Your task to perform on an android device: clear history in the chrome app Image 0: 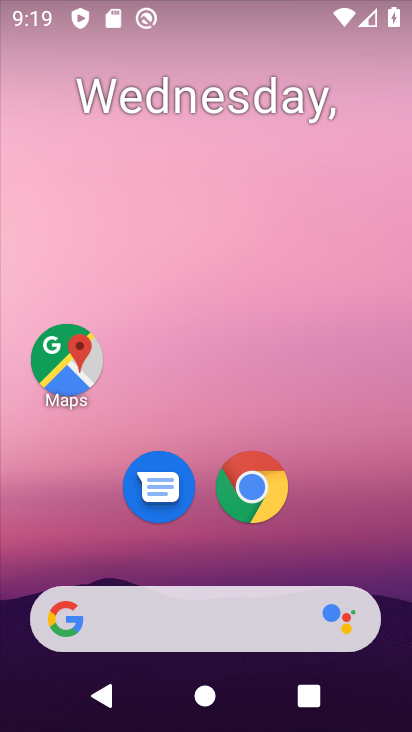
Step 0: click (266, 483)
Your task to perform on an android device: clear history in the chrome app Image 1: 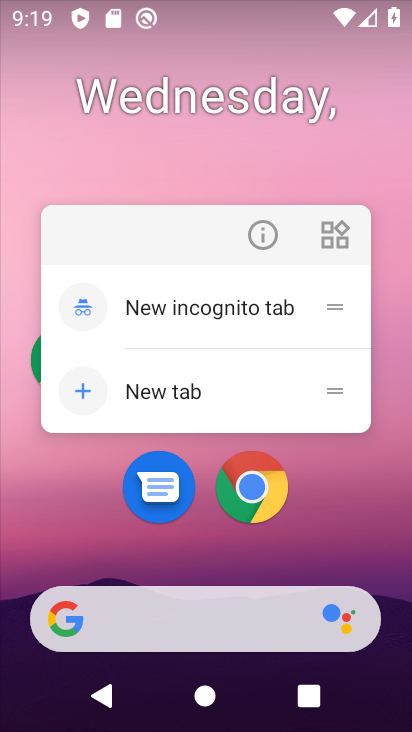
Step 1: click (285, 496)
Your task to perform on an android device: clear history in the chrome app Image 2: 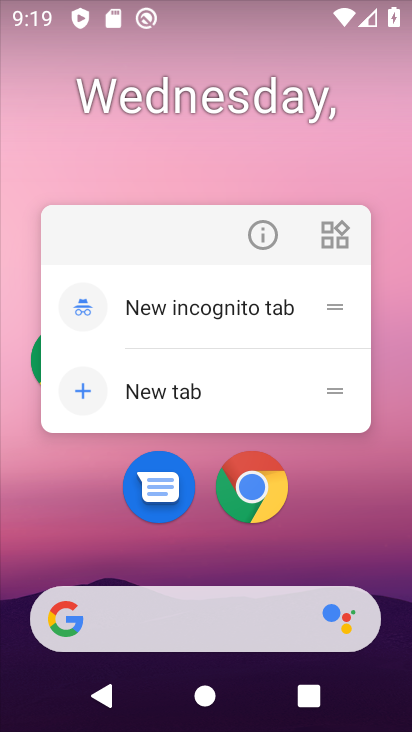
Step 2: click (263, 227)
Your task to perform on an android device: clear history in the chrome app Image 3: 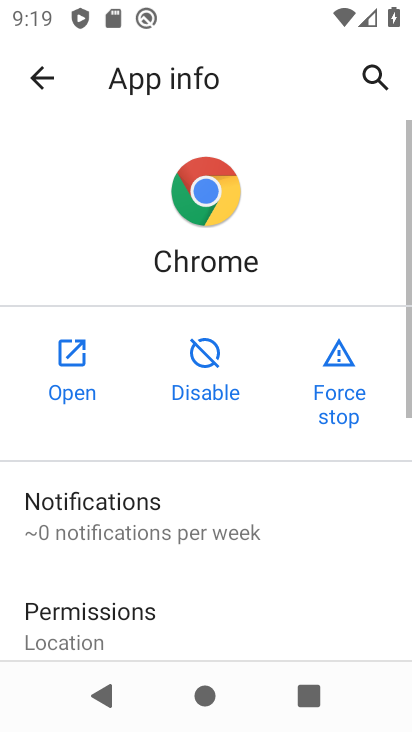
Step 3: click (61, 356)
Your task to perform on an android device: clear history in the chrome app Image 4: 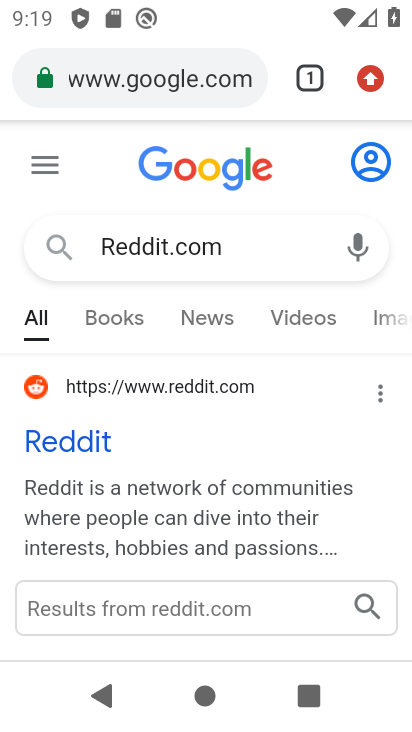
Step 4: click (376, 90)
Your task to perform on an android device: clear history in the chrome app Image 5: 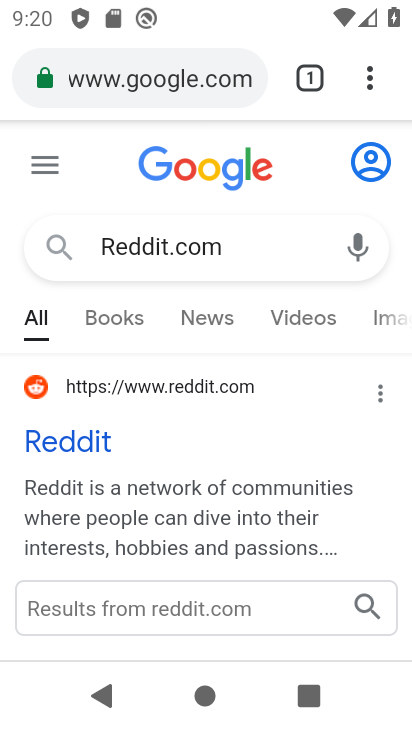
Step 5: click (370, 85)
Your task to perform on an android device: clear history in the chrome app Image 6: 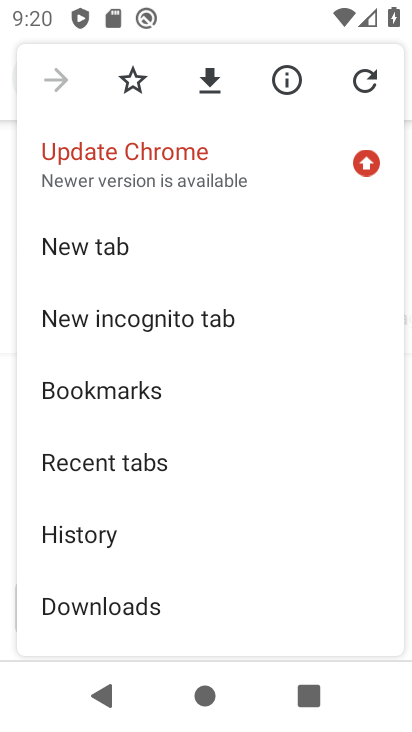
Step 6: drag from (156, 583) to (255, 196)
Your task to perform on an android device: clear history in the chrome app Image 7: 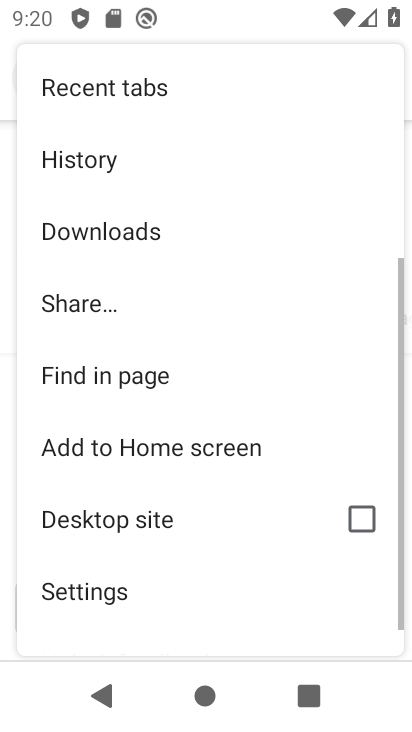
Step 7: click (118, 590)
Your task to perform on an android device: clear history in the chrome app Image 8: 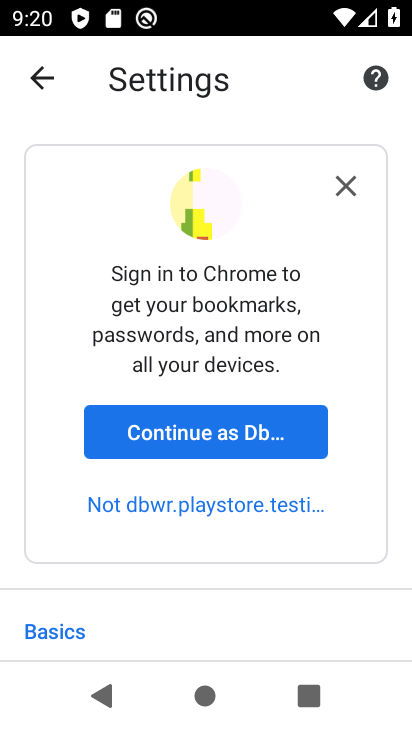
Step 8: click (118, 589)
Your task to perform on an android device: clear history in the chrome app Image 9: 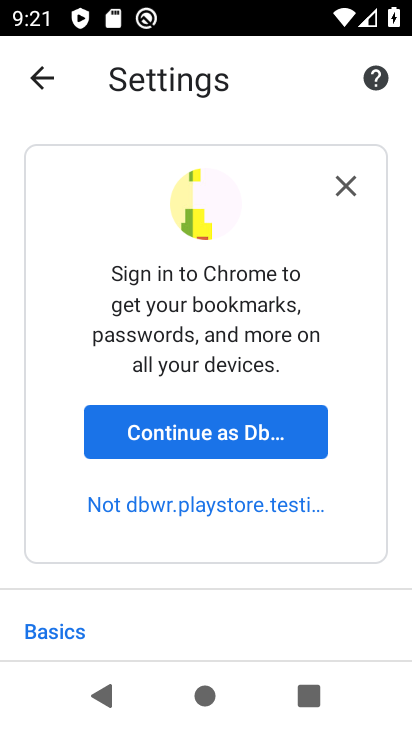
Step 9: click (347, 190)
Your task to perform on an android device: clear history in the chrome app Image 10: 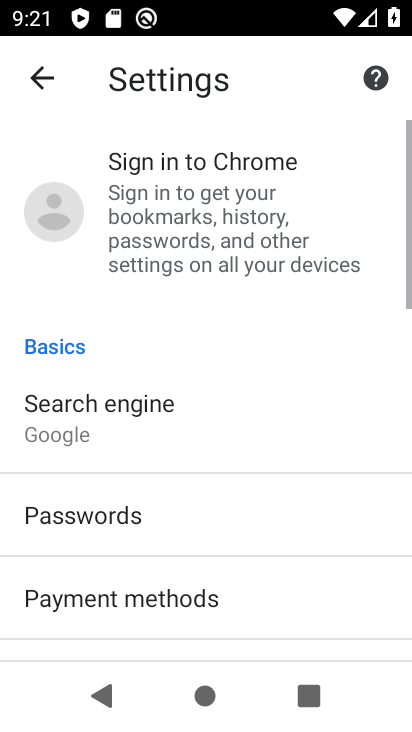
Step 10: drag from (228, 599) to (285, 175)
Your task to perform on an android device: clear history in the chrome app Image 11: 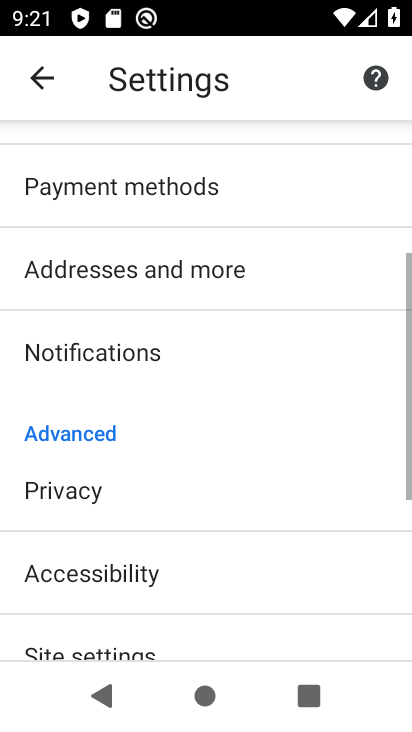
Step 11: drag from (233, 581) to (278, 269)
Your task to perform on an android device: clear history in the chrome app Image 12: 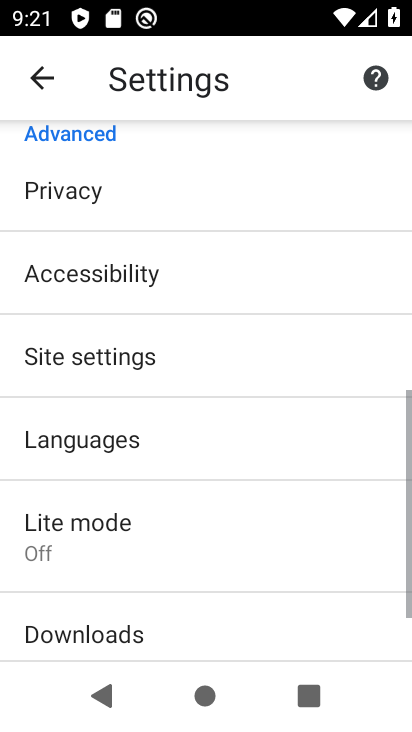
Step 12: click (71, 173)
Your task to perform on an android device: clear history in the chrome app Image 13: 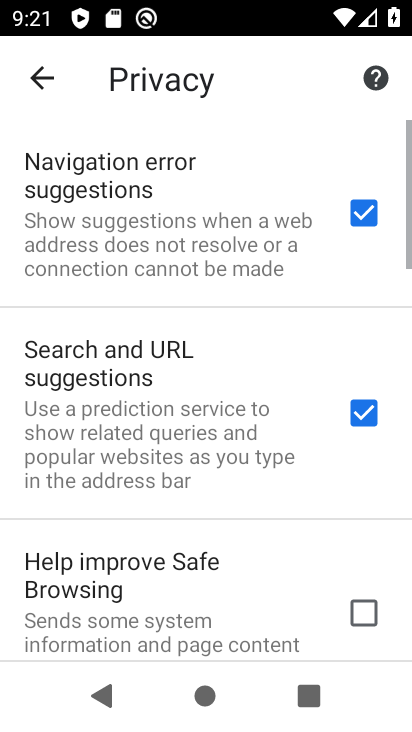
Step 13: drag from (244, 585) to (300, 134)
Your task to perform on an android device: clear history in the chrome app Image 14: 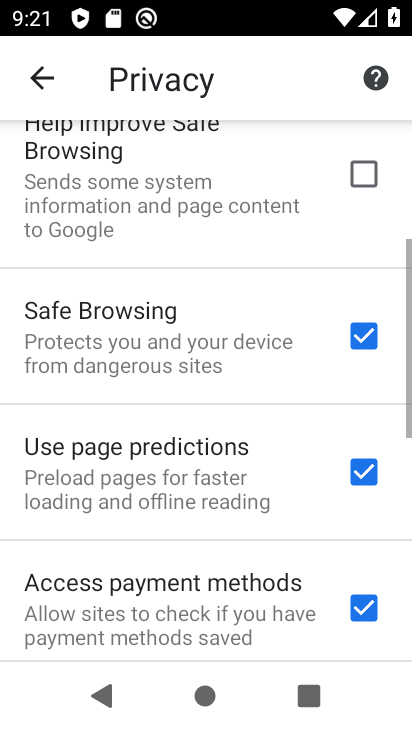
Step 14: drag from (264, 551) to (311, 188)
Your task to perform on an android device: clear history in the chrome app Image 15: 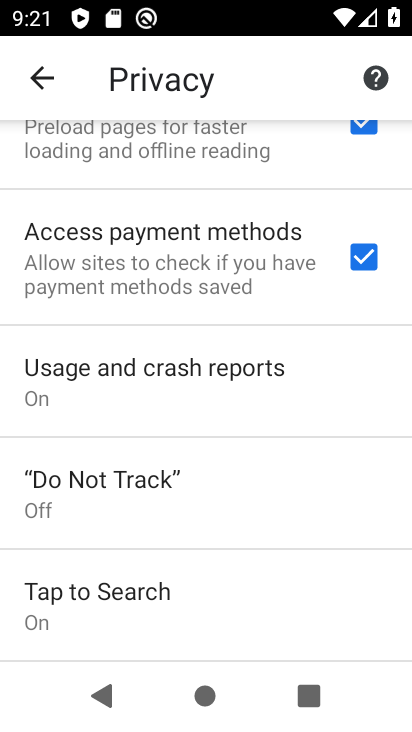
Step 15: drag from (287, 631) to (314, 300)
Your task to perform on an android device: clear history in the chrome app Image 16: 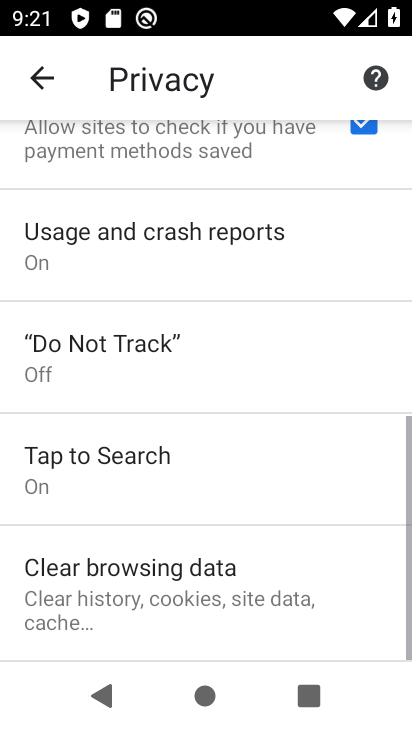
Step 16: click (181, 605)
Your task to perform on an android device: clear history in the chrome app Image 17: 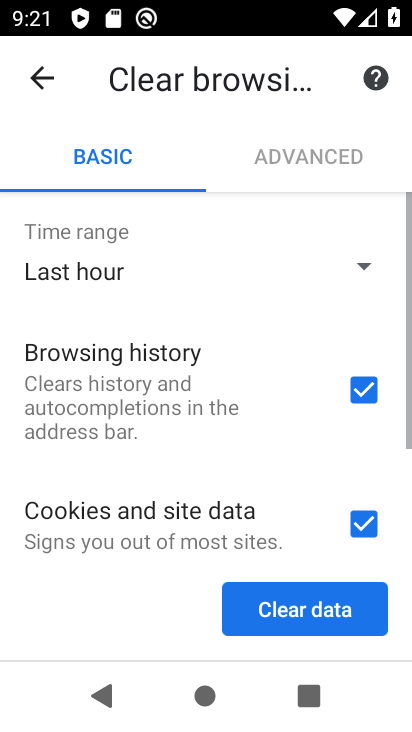
Step 17: click (316, 606)
Your task to perform on an android device: clear history in the chrome app Image 18: 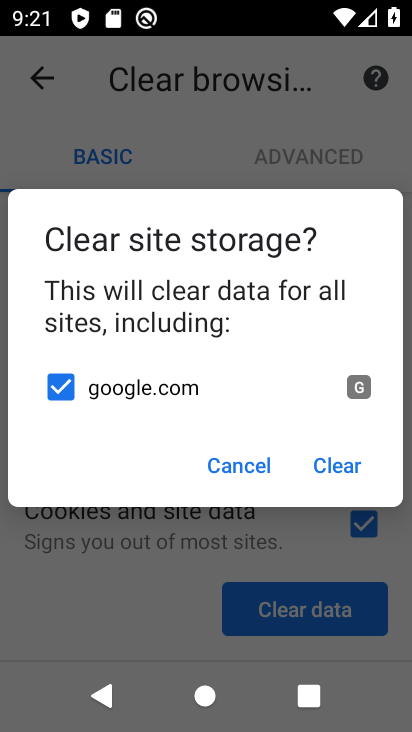
Step 18: click (331, 462)
Your task to perform on an android device: clear history in the chrome app Image 19: 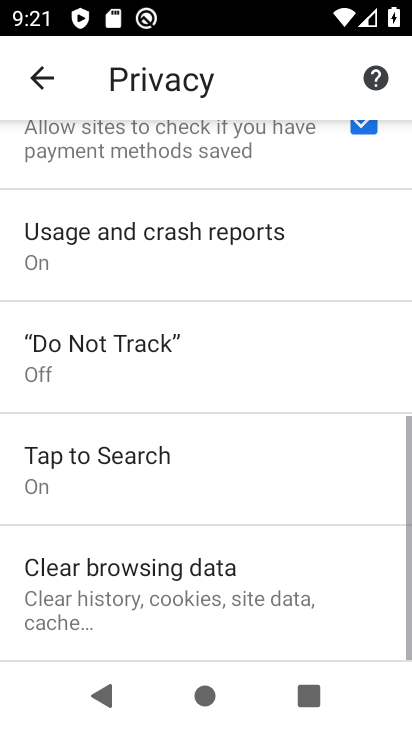
Step 19: task complete